Your task to perform on an android device: uninstall "Chime – Mobile Banking" Image 0: 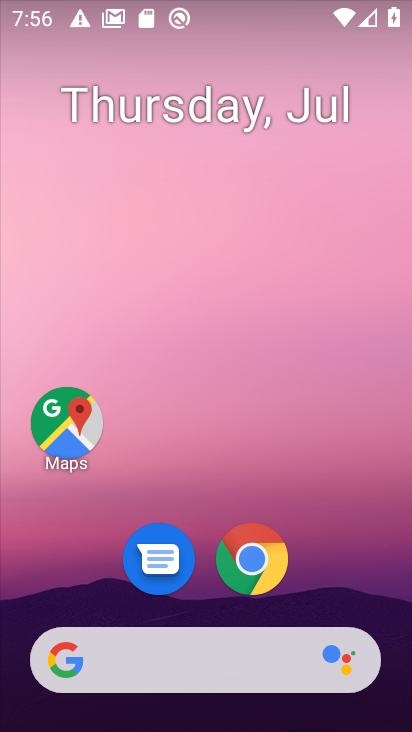
Step 0: click (384, 492)
Your task to perform on an android device: uninstall "Chime – Mobile Banking" Image 1: 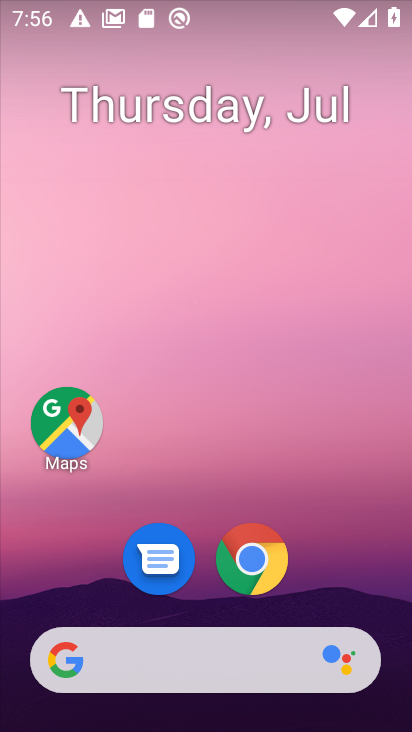
Step 1: drag from (201, 500) to (249, 208)
Your task to perform on an android device: uninstall "Chime – Mobile Banking" Image 2: 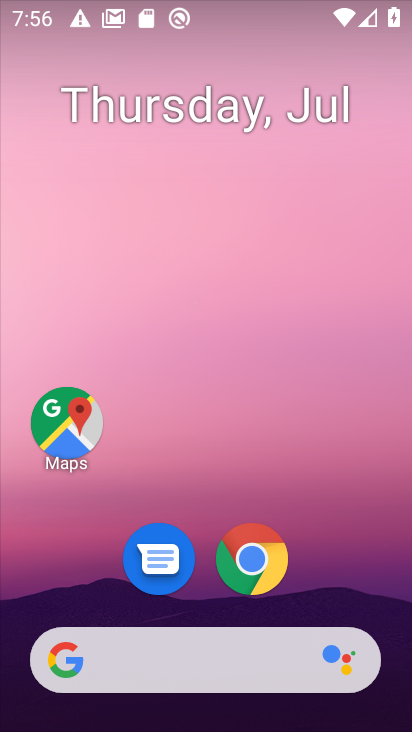
Step 2: drag from (189, 613) to (233, 178)
Your task to perform on an android device: uninstall "Chime – Mobile Banking" Image 3: 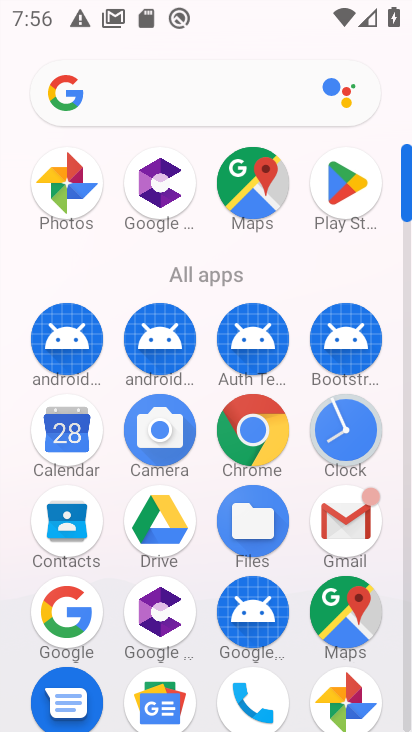
Step 3: drag from (203, 598) to (221, 254)
Your task to perform on an android device: uninstall "Chime – Mobile Banking" Image 4: 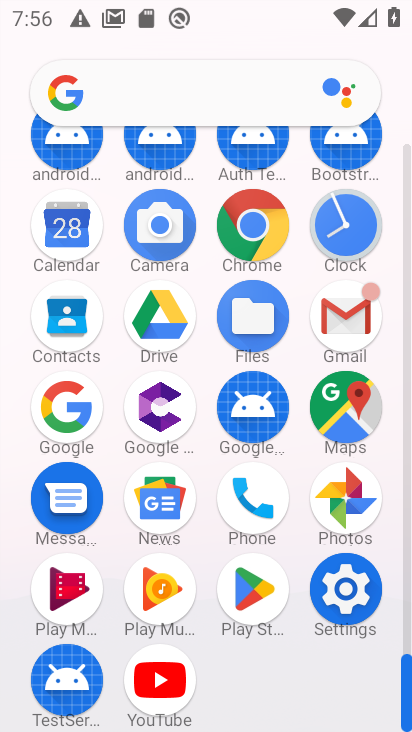
Step 4: click (254, 581)
Your task to perform on an android device: uninstall "Chime – Mobile Banking" Image 5: 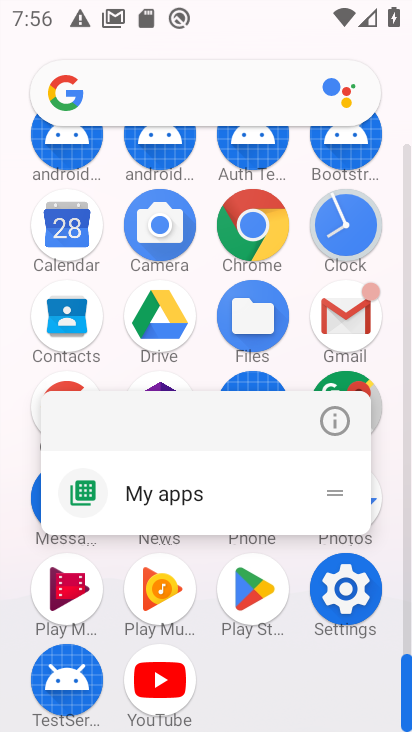
Step 5: click (251, 599)
Your task to perform on an android device: uninstall "Chime – Mobile Banking" Image 6: 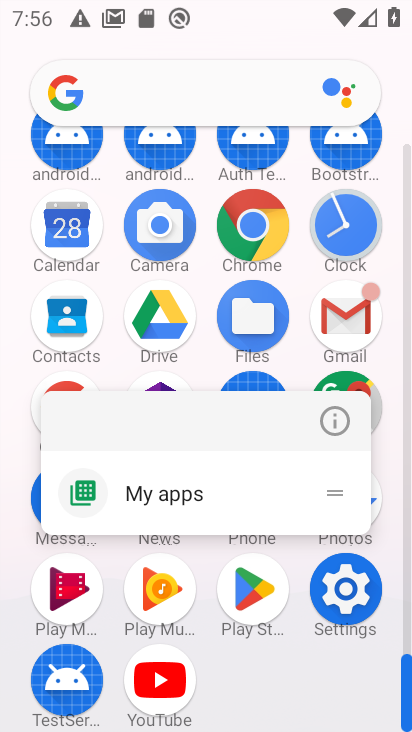
Step 6: click (346, 417)
Your task to perform on an android device: uninstall "Chime – Mobile Banking" Image 7: 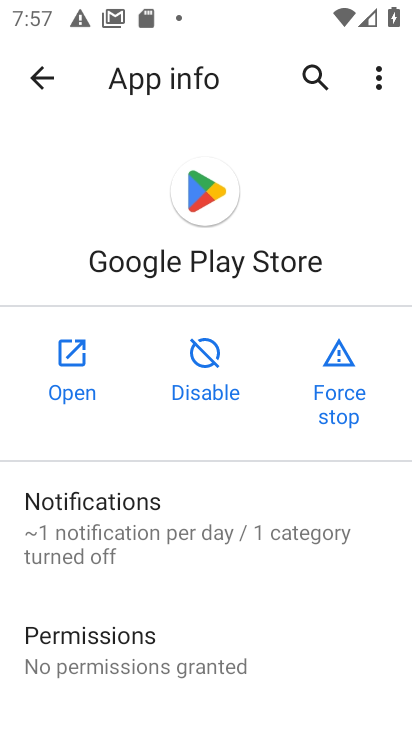
Step 7: drag from (209, 562) to (213, 301)
Your task to perform on an android device: uninstall "Chime – Mobile Banking" Image 8: 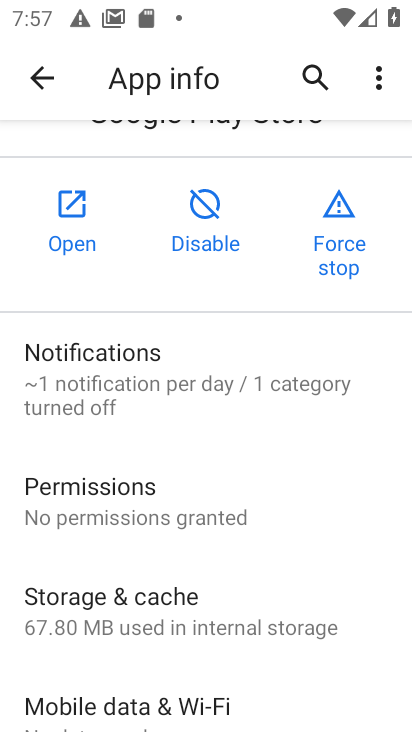
Step 8: click (76, 228)
Your task to perform on an android device: uninstall "Chime – Mobile Banking" Image 9: 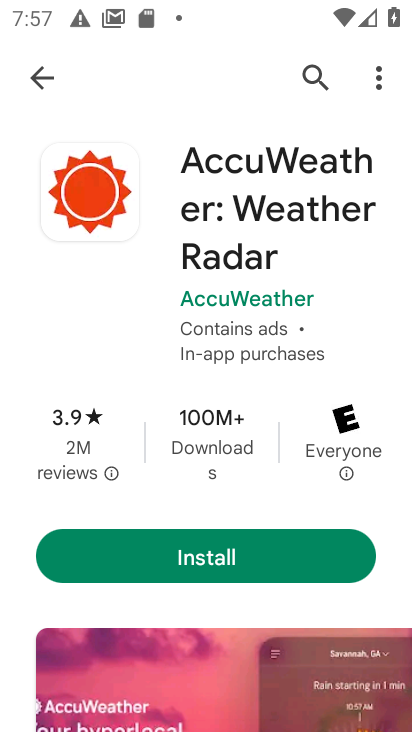
Step 9: click (320, 71)
Your task to perform on an android device: uninstall "Chime – Mobile Banking" Image 10: 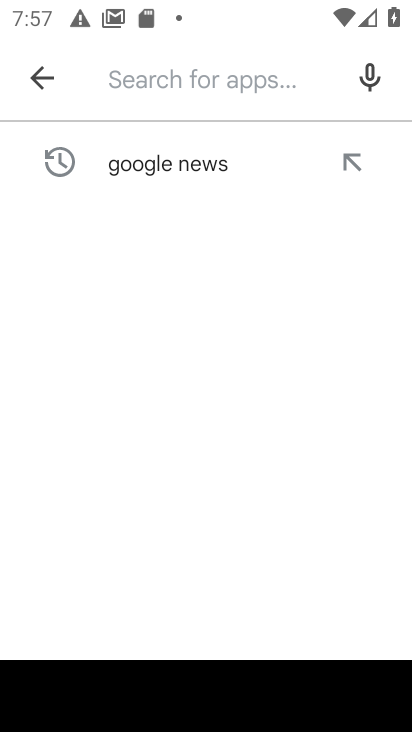
Step 10: type "Chime – Mobile Banking"
Your task to perform on an android device: uninstall "Chime – Mobile Banking" Image 11: 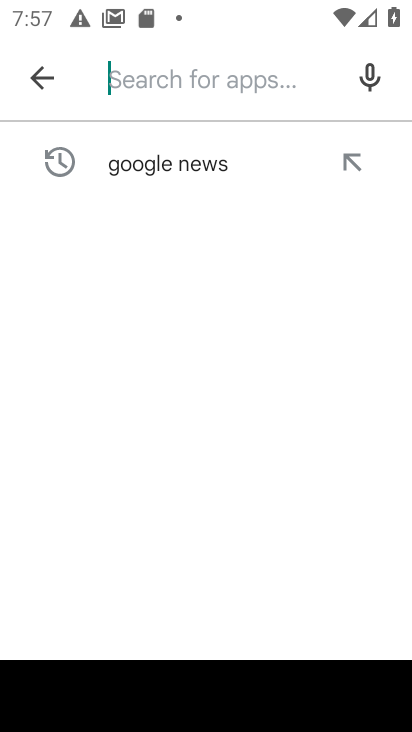
Step 11: type ""
Your task to perform on an android device: uninstall "Chime – Mobile Banking" Image 12: 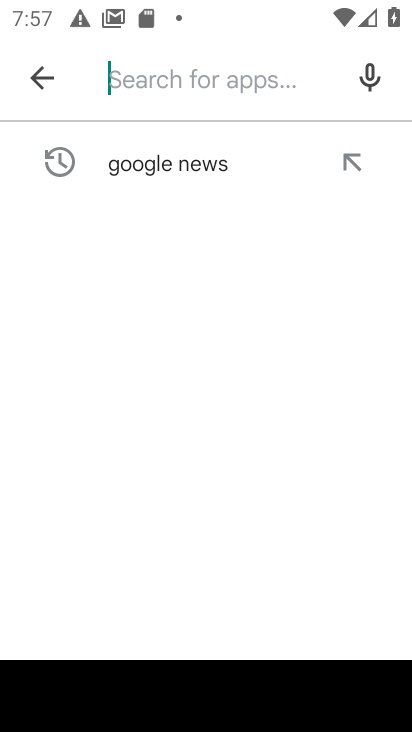
Step 12: type "Chime – Mobile Banking"
Your task to perform on an android device: uninstall "Chime – Mobile Banking" Image 13: 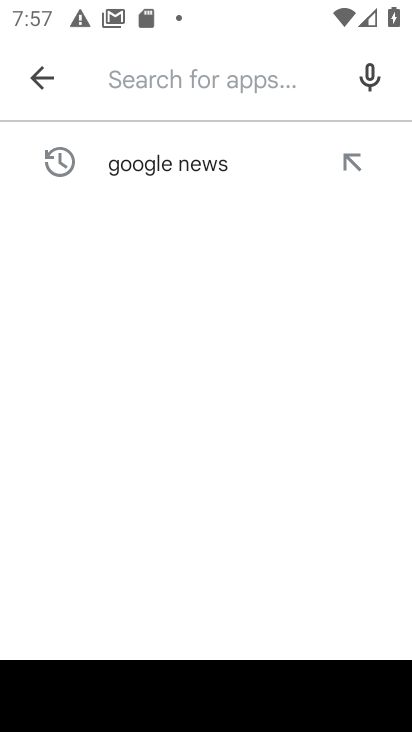
Step 13: type ""
Your task to perform on an android device: uninstall "Chime – Mobile Banking" Image 14: 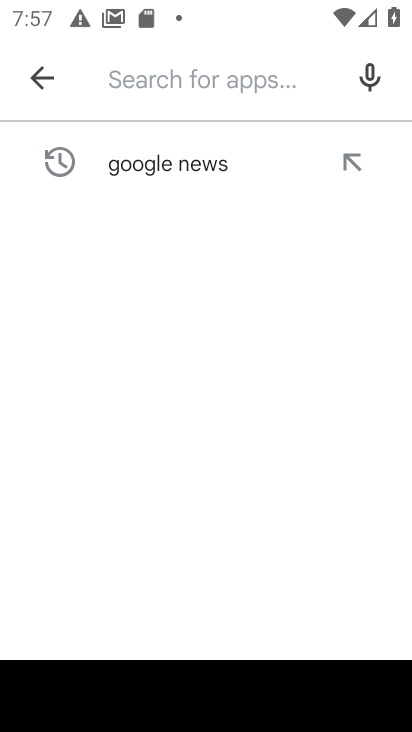
Step 14: click (35, 80)
Your task to perform on an android device: uninstall "Chime – Mobile Banking" Image 15: 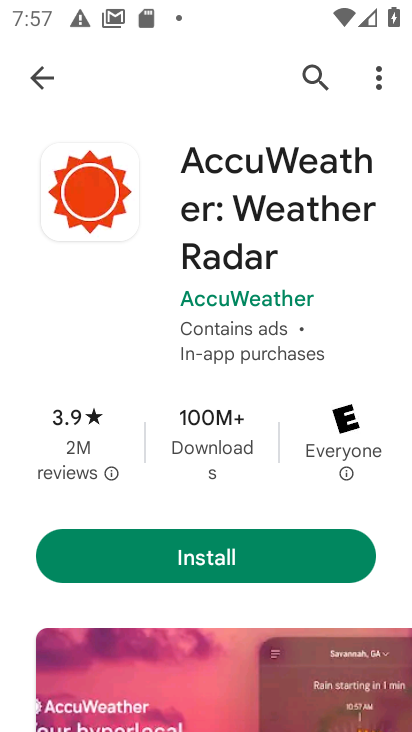
Step 15: click (45, 83)
Your task to perform on an android device: uninstall "Chime – Mobile Banking" Image 16: 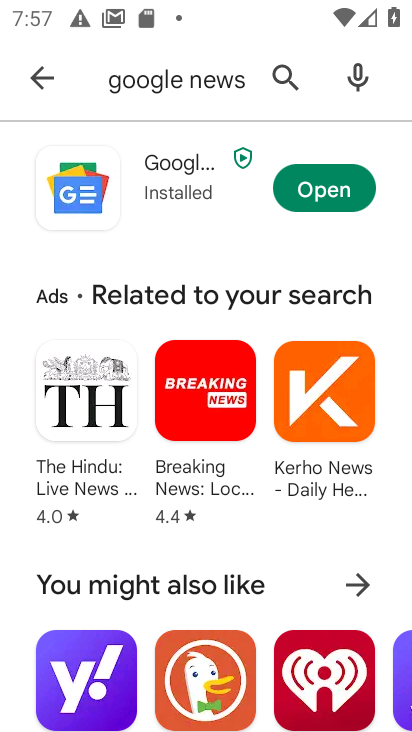
Step 16: click (285, 71)
Your task to perform on an android device: uninstall "Chime – Mobile Banking" Image 17: 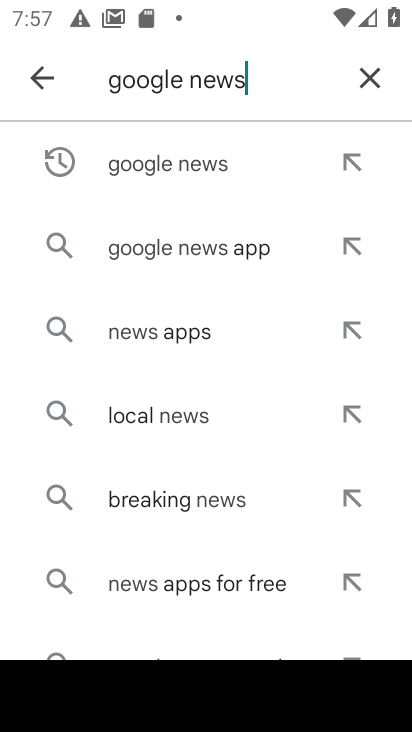
Step 17: click (371, 78)
Your task to perform on an android device: uninstall "Chime – Mobile Banking" Image 18: 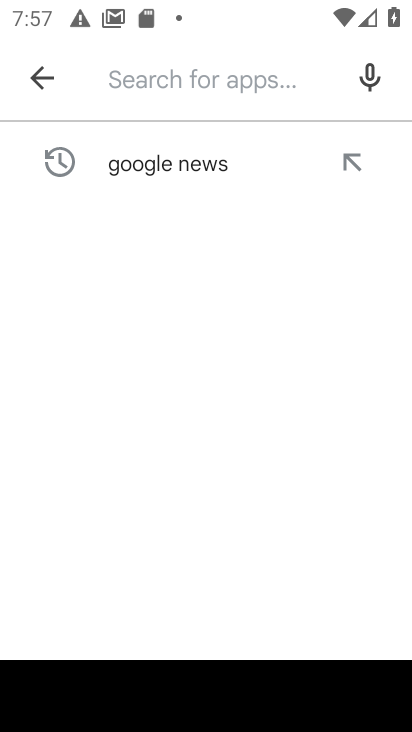
Step 18: type "Chime – Mobile Banking"
Your task to perform on an android device: uninstall "Chime – Mobile Banking" Image 19: 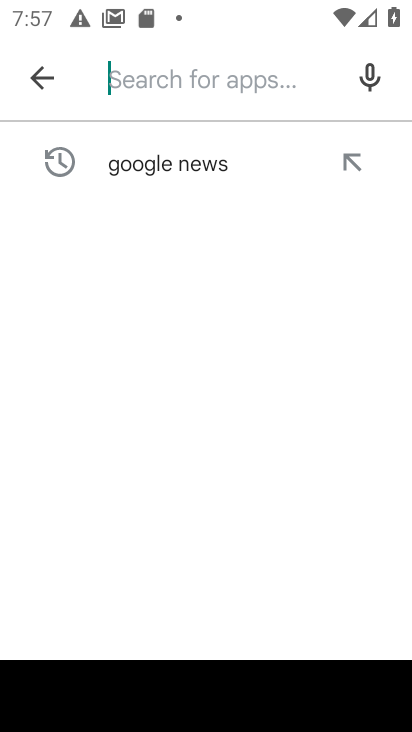
Step 19: task complete